Your task to perform on an android device: turn off translation in the chrome app Image 0: 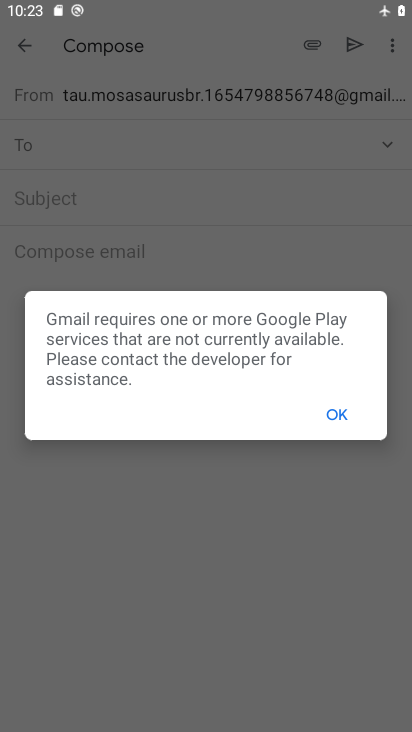
Step 0: click (348, 404)
Your task to perform on an android device: turn off translation in the chrome app Image 1: 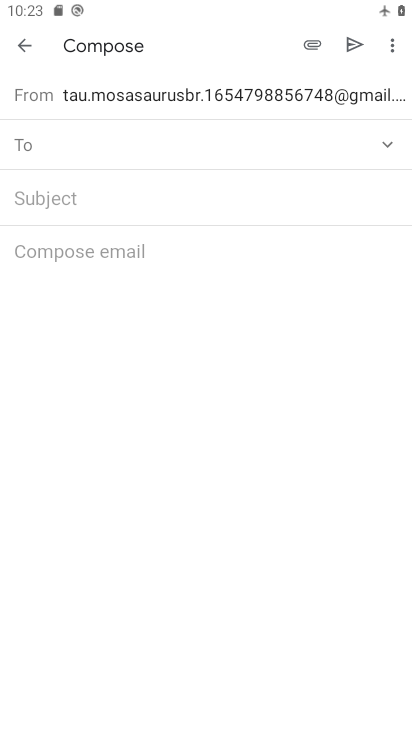
Step 1: click (37, 50)
Your task to perform on an android device: turn off translation in the chrome app Image 2: 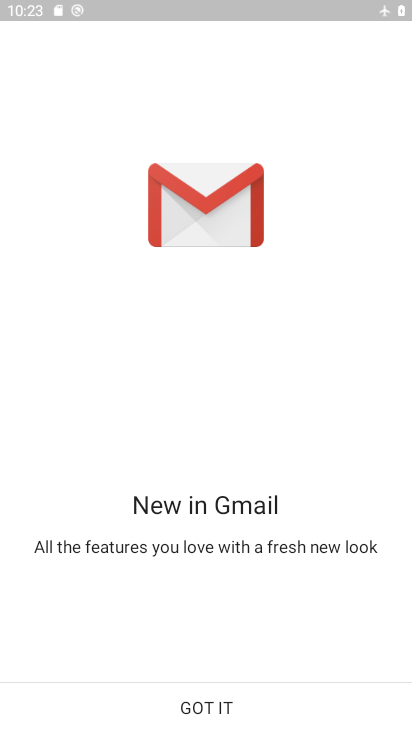
Step 2: click (217, 698)
Your task to perform on an android device: turn off translation in the chrome app Image 3: 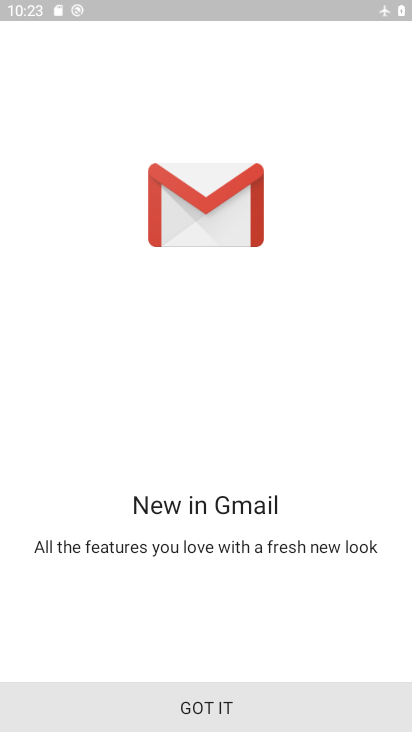
Step 3: click (222, 699)
Your task to perform on an android device: turn off translation in the chrome app Image 4: 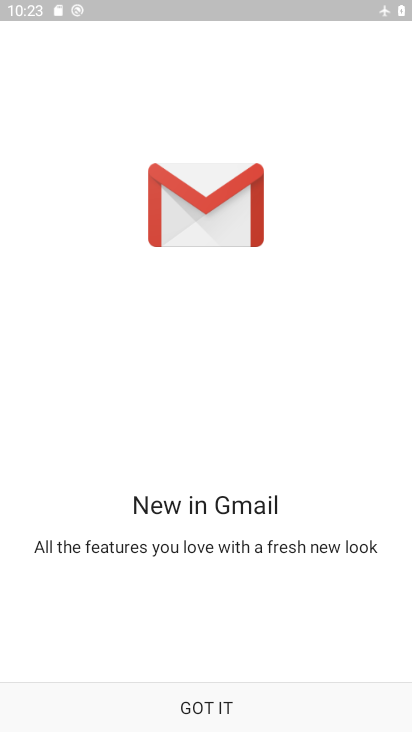
Step 4: click (222, 699)
Your task to perform on an android device: turn off translation in the chrome app Image 5: 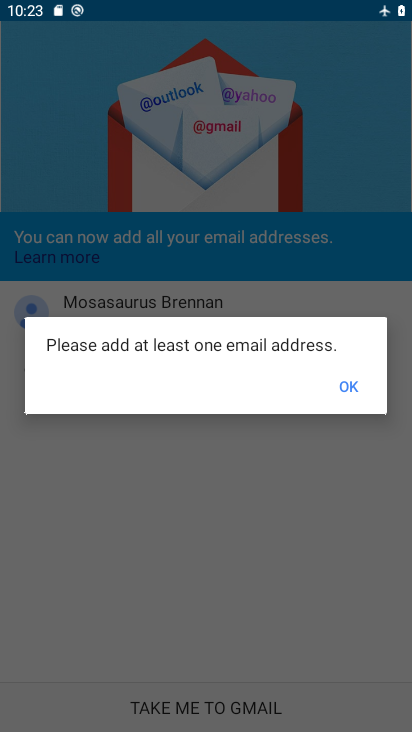
Step 5: click (352, 386)
Your task to perform on an android device: turn off translation in the chrome app Image 6: 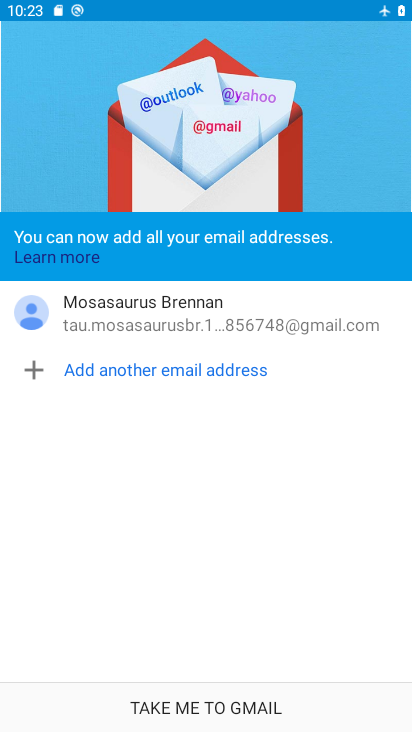
Step 6: press back button
Your task to perform on an android device: turn off translation in the chrome app Image 7: 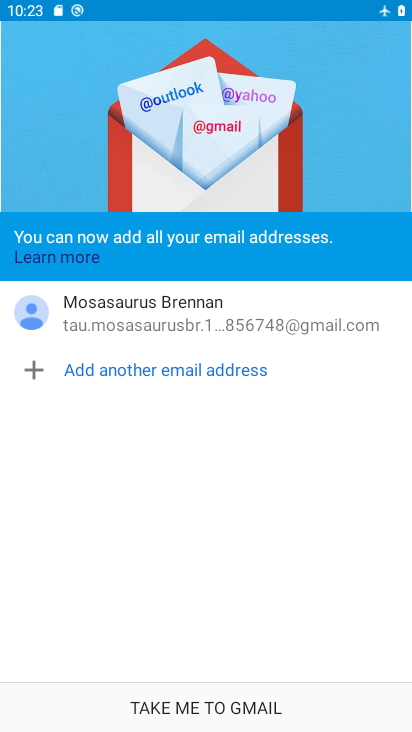
Step 7: press back button
Your task to perform on an android device: turn off translation in the chrome app Image 8: 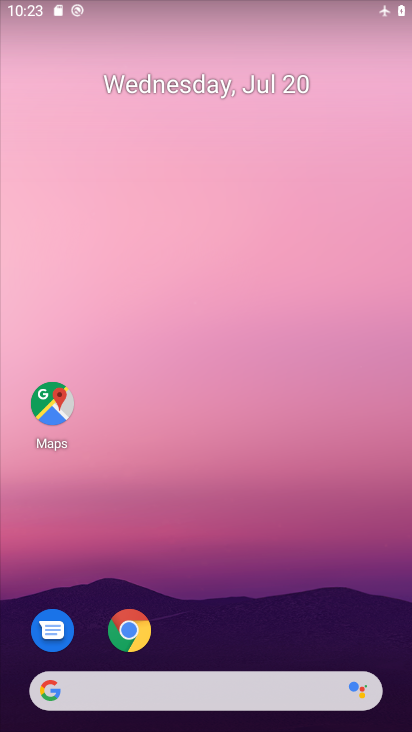
Step 8: drag from (236, 687) to (269, 139)
Your task to perform on an android device: turn off translation in the chrome app Image 9: 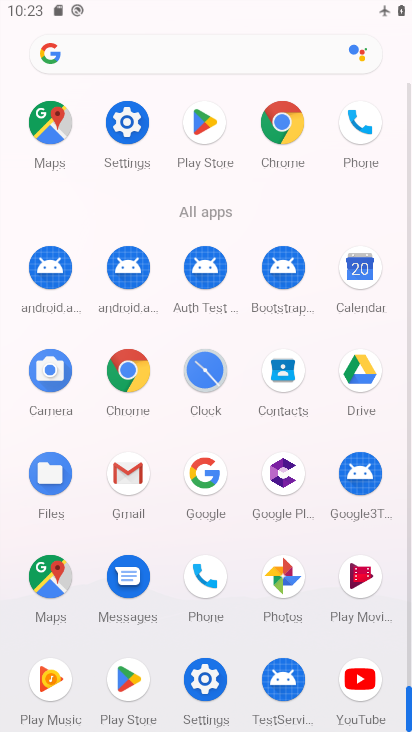
Step 9: click (280, 121)
Your task to perform on an android device: turn off translation in the chrome app Image 10: 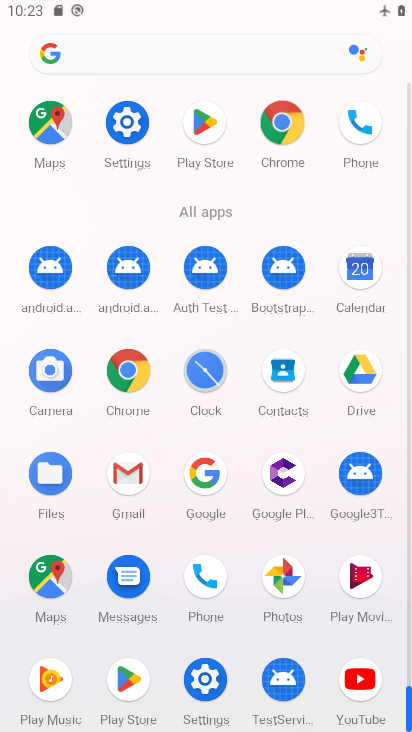
Step 10: click (279, 120)
Your task to perform on an android device: turn off translation in the chrome app Image 11: 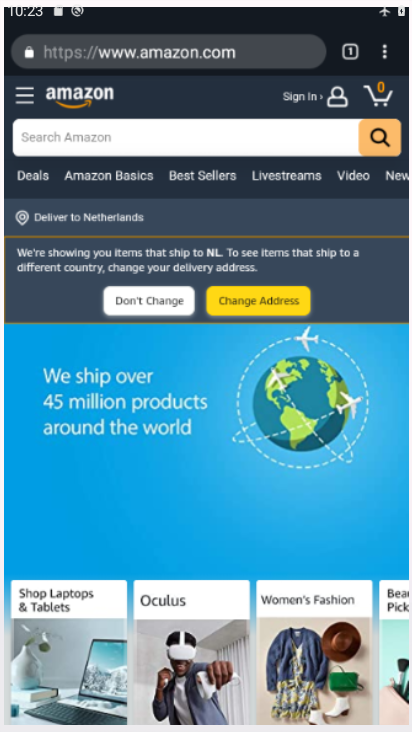
Step 11: click (277, 113)
Your task to perform on an android device: turn off translation in the chrome app Image 12: 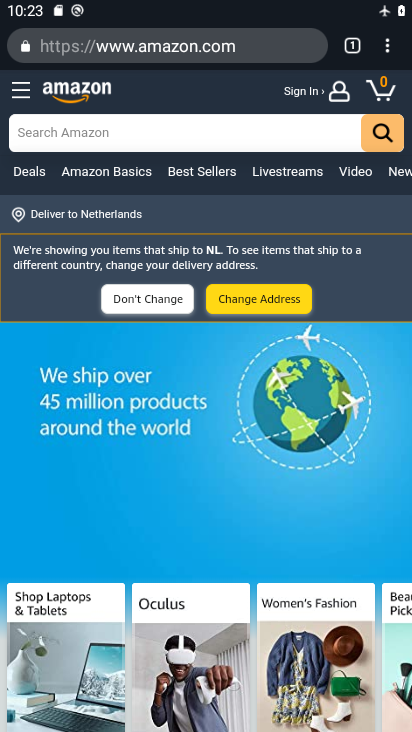
Step 12: drag from (382, 53) to (217, 518)
Your task to perform on an android device: turn off translation in the chrome app Image 13: 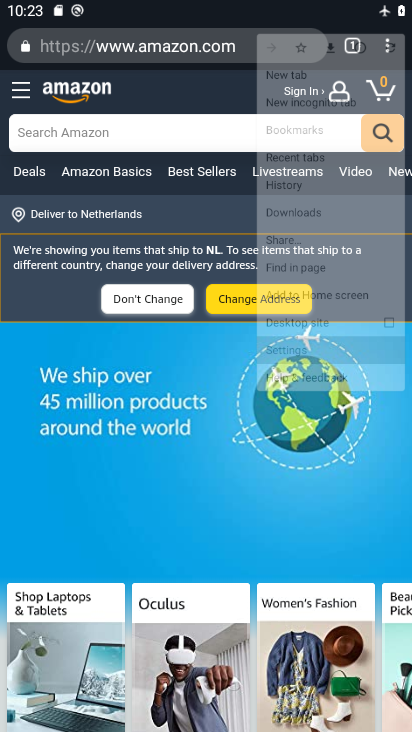
Step 13: click (224, 518)
Your task to perform on an android device: turn off translation in the chrome app Image 14: 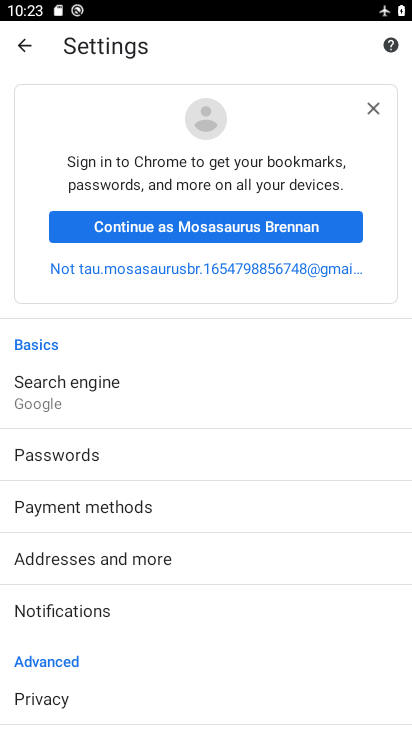
Step 14: drag from (197, 633) to (155, 349)
Your task to perform on an android device: turn off translation in the chrome app Image 15: 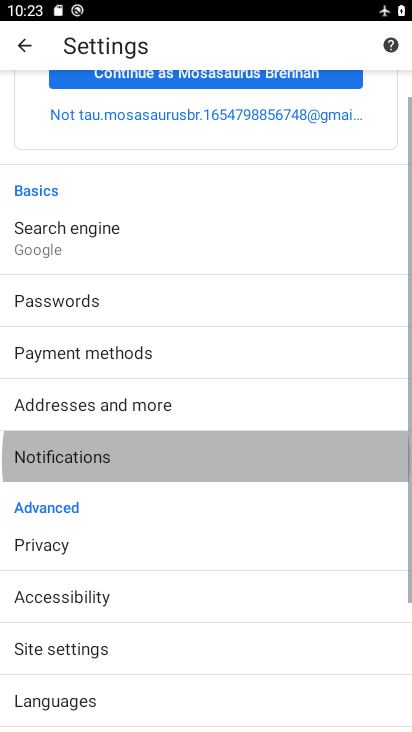
Step 15: drag from (106, 592) to (108, 140)
Your task to perform on an android device: turn off translation in the chrome app Image 16: 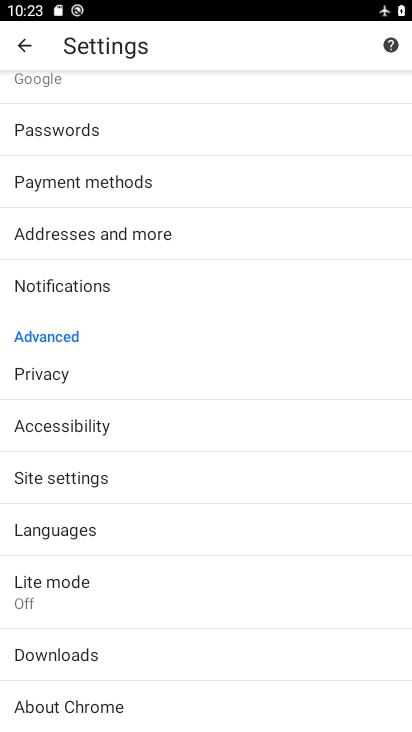
Step 16: click (121, 526)
Your task to perform on an android device: turn off translation in the chrome app Image 17: 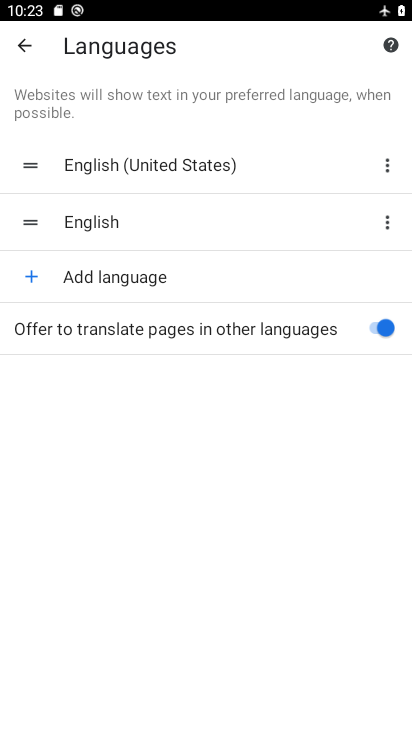
Step 17: click (372, 332)
Your task to perform on an android device: turn off translation in the chrome app Image 18: 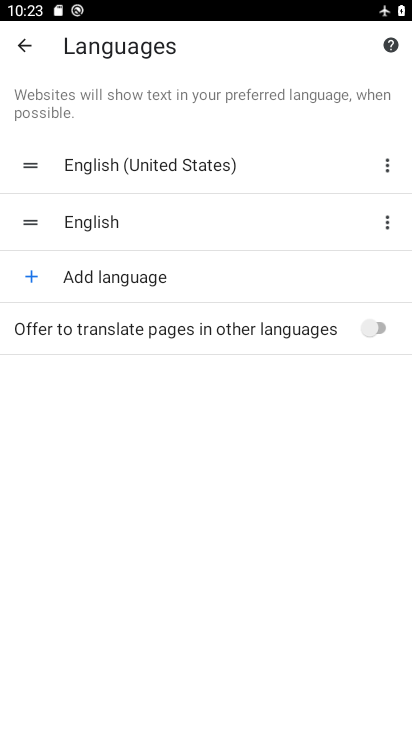
Step 18: task complete